Your task to perform on an android device: turn off notifications in google photos Image 0: 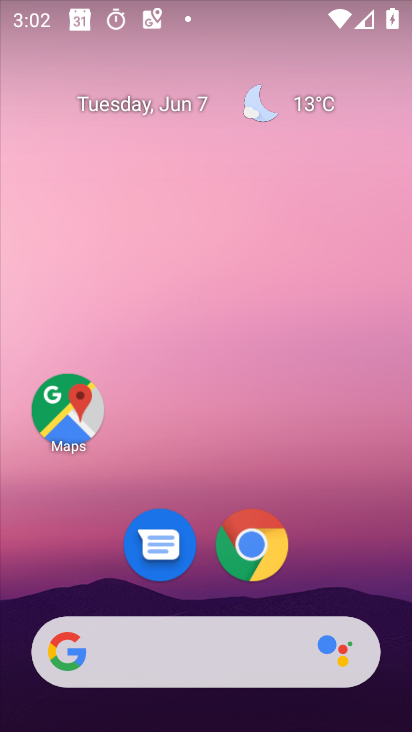
Step 0: drag from (332, 325) to (223, 18)
Your task to perform on an android device: turn off notifications in google photos Image 1: 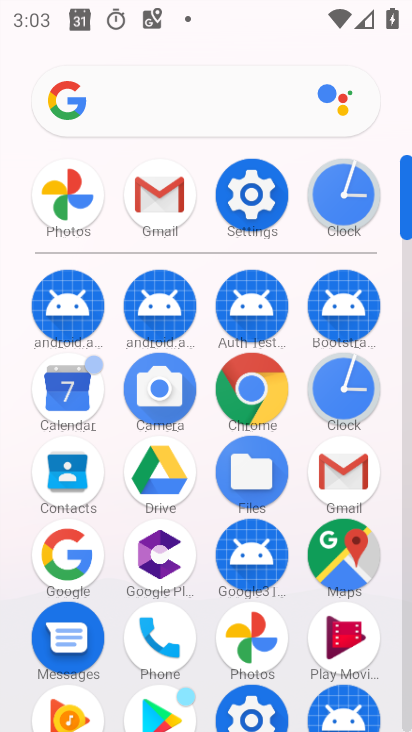
Step 1: click (262, 650)
Your task to perform on an android device: turn off notifications in google photos Image 2: 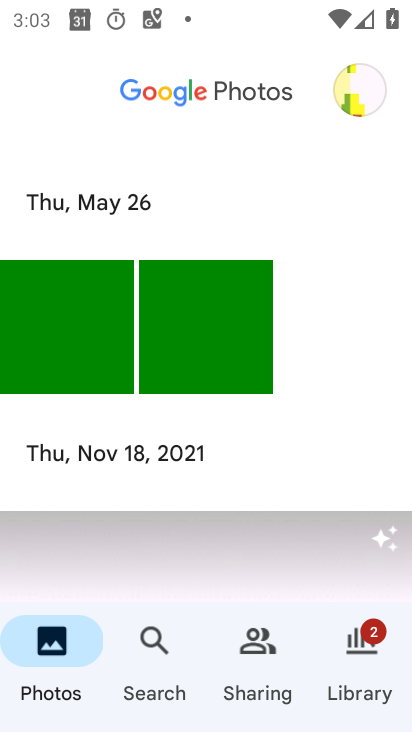
Step 2: click (359, 95)
Your task to perform on an android device: turn off notifications in google photos Image 3: 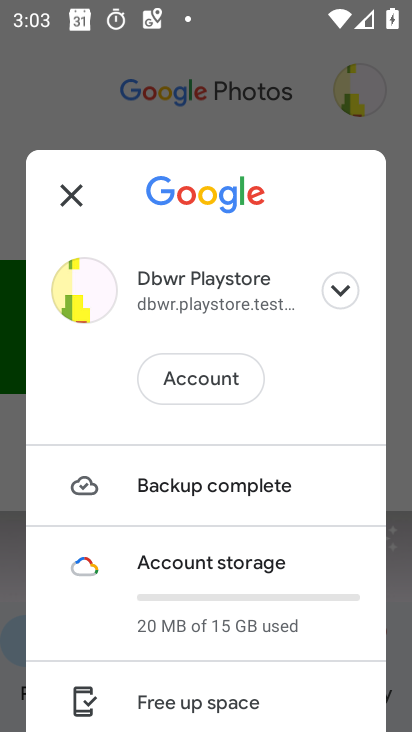
Step 3: drag from (242, 660) to (221, 178)
Your task to perform on an android device: turn off notifications in google photos Image 4: 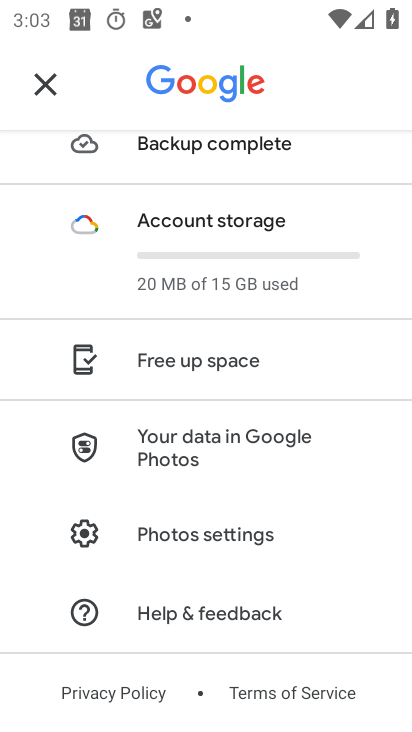
Step 4: click (245, 515)
Your task to perform on an android device: turn off notifications in google photos Image 5: 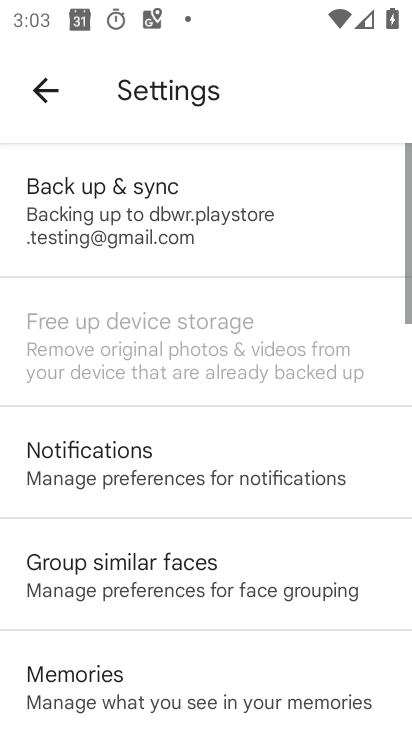
Step 5: click (234, 474)
Your task to perform on an android device: turn off notifications in google photos Image 6: 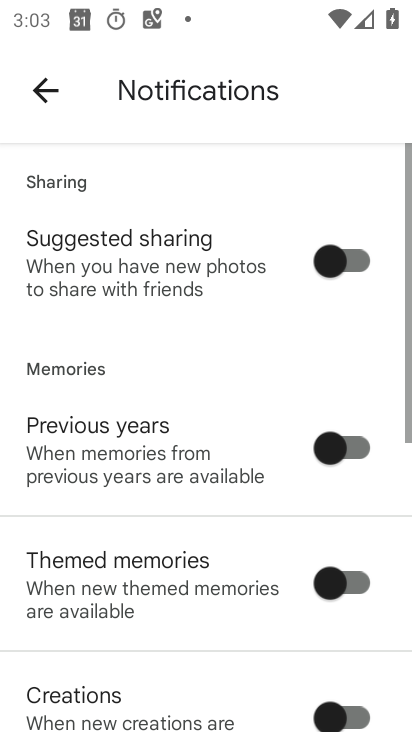
Step 6: task complete